Your task to perform on an android device: turn on the 24-hour format for clock Image 0: 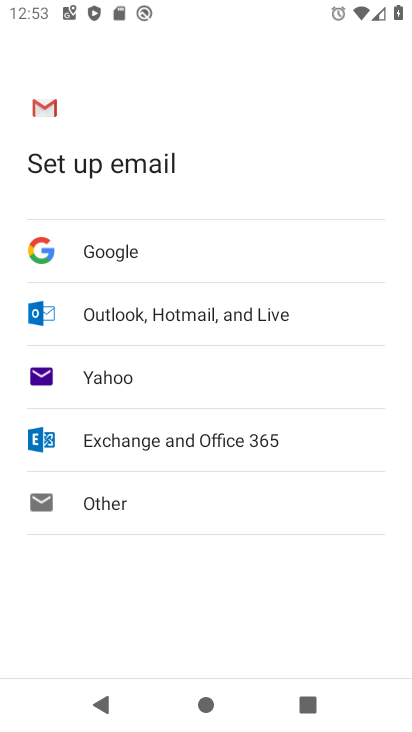
Step 0: press home button
Your task to perform on an android device: turn on the 24-hour format for clock Image 1: 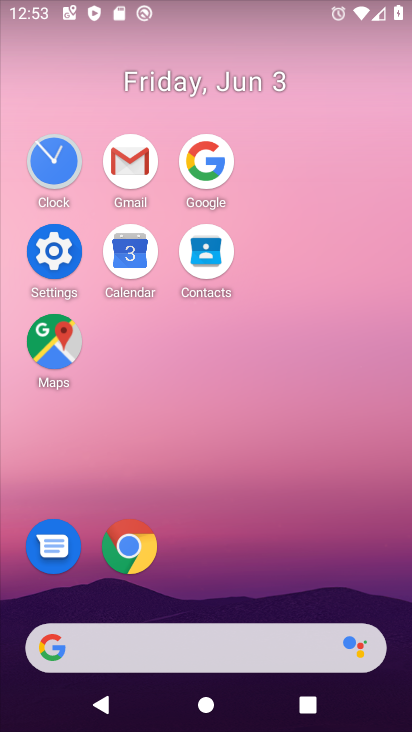
Step 1: click (46, 162)
Your task to perform on an android device: turn on the 24-hour format for clock Image 2: 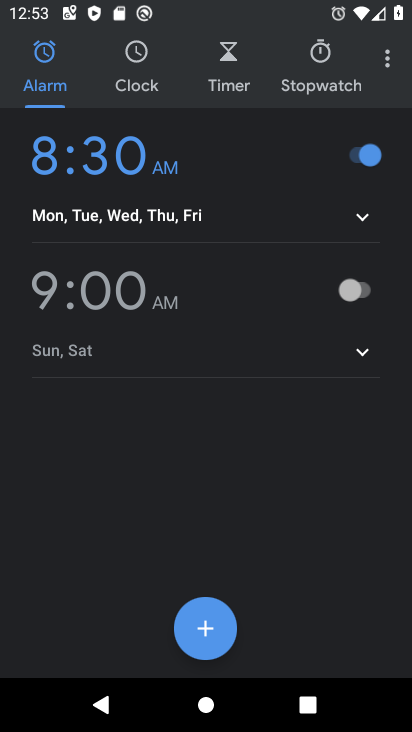
Step 2: click (395, 61)
Your task to perform on an android device: turn on the 24-hour format for clock Image 3: 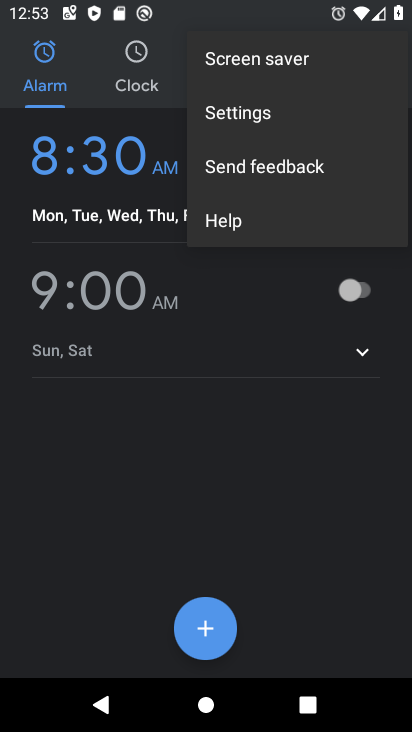
Step 3: click (298, 123)
Your task to perform on an android device: turn on the 24-hour format for clock Image 4: 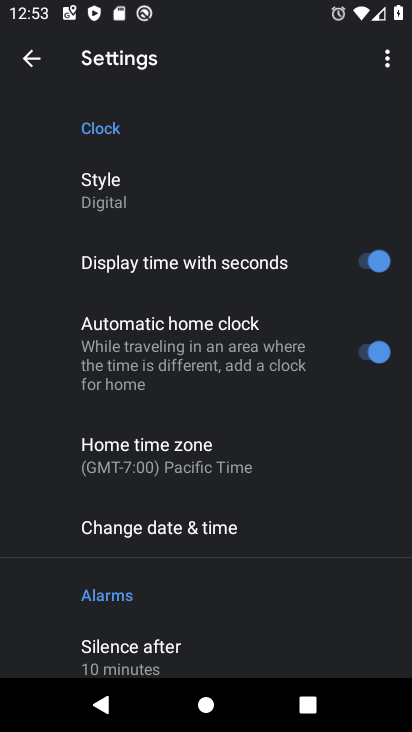
Step 4: click (266, 532)
Your task to perform on an android device: turn on the 24-hour format for clock Image 5: 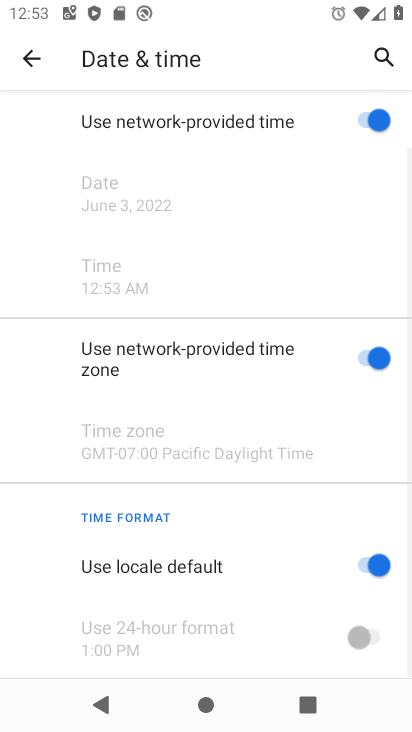
Step 5: drag from (266, 532) to (307, 168)
Your task to perform on an android device: turn on the 24-hour format for clock Image 6: 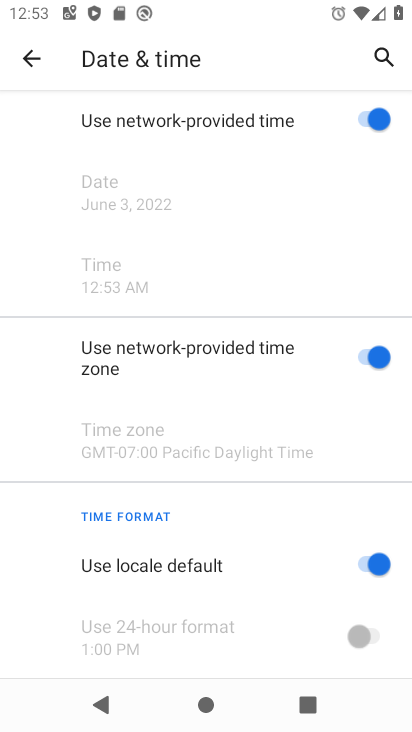
Step 6: click (367, 558)
Your task to perform on an android device: turn on the 24-hour format for clock Image 7: 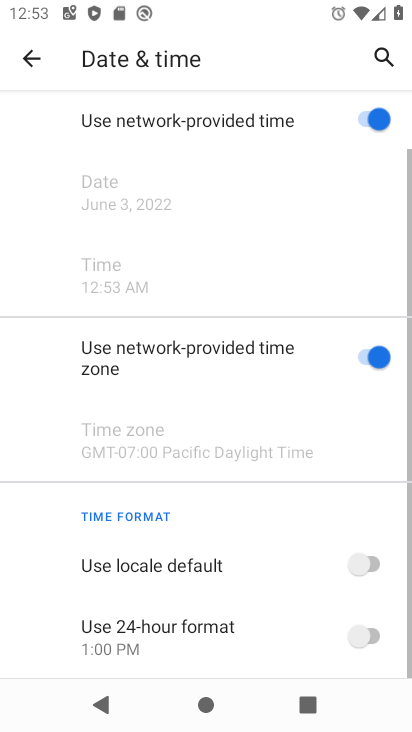
Step 7: click (360, 632)
Your task to perform on an android device: turn on the 24-hour format for clock Image 8: 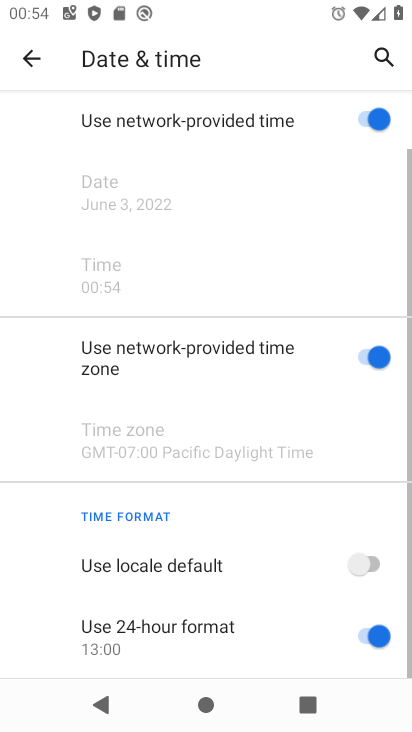
Step 8: task complete